Your task to perform on an android device: delete a single message in the gmail app Image 0: 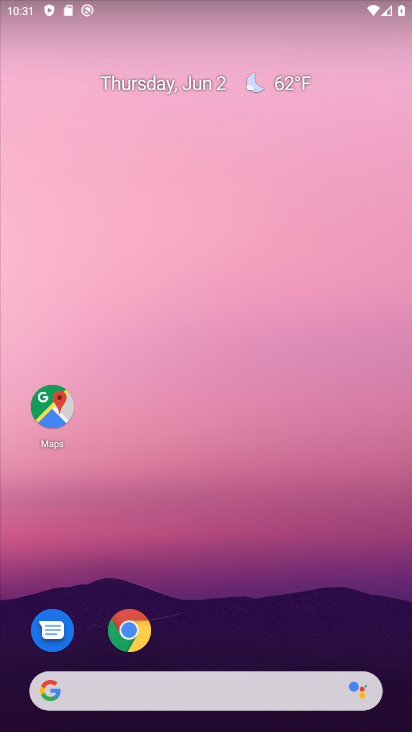
Step 0: drag from (145, 690) to (277, 103)
Your task to perform on an android device: delete a single message in the gmail app Image 1: 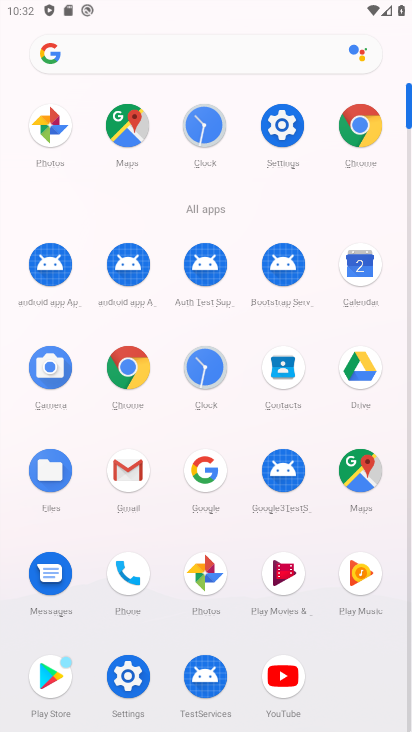
Step 1: click (128, 478)
Your task to perform on an android device: delete a single message in the gmail app Image 2: 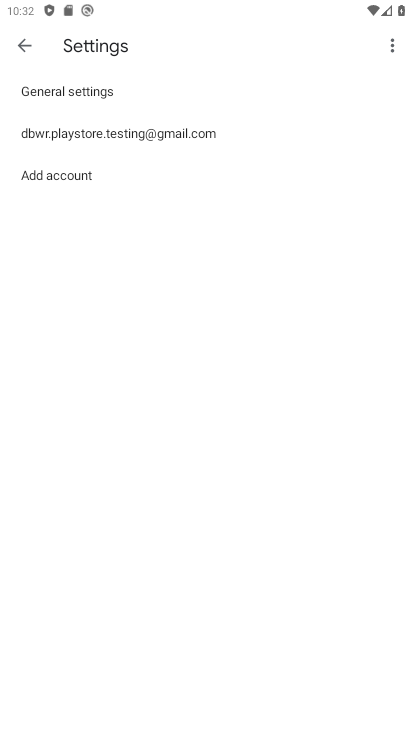
Step 2: click (30, 40)
Your task to perform on an android device: delete a single message in the gmail app Image 3: 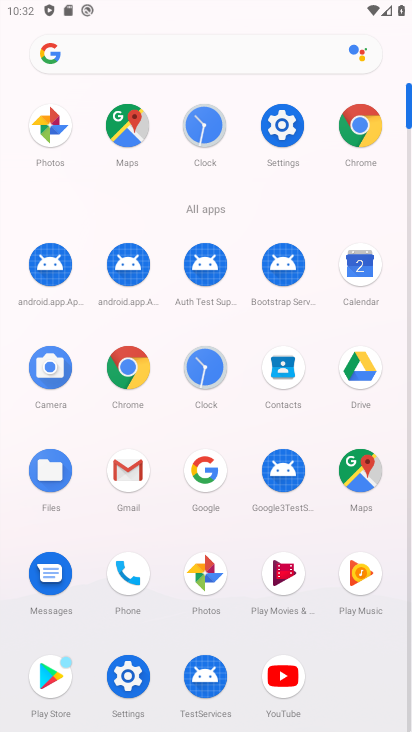
Step 3: click (123, 475)
Your task to perform on an android device: delete a single message in the gmail app Image 4: 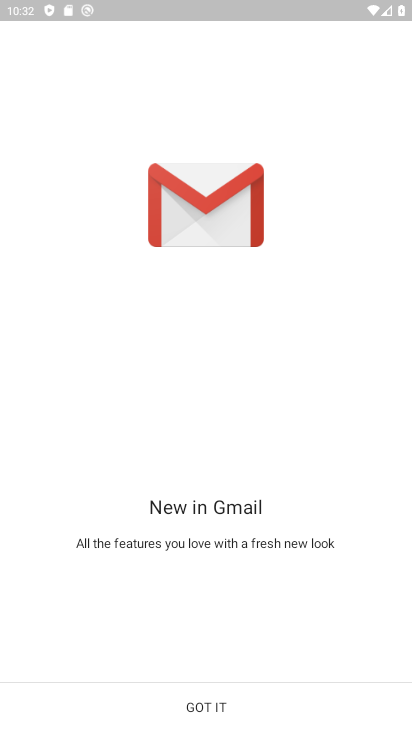
Step 4: click (204, 711)
Your task to perform on an android device: delete a single message in the gmail app Image 5: 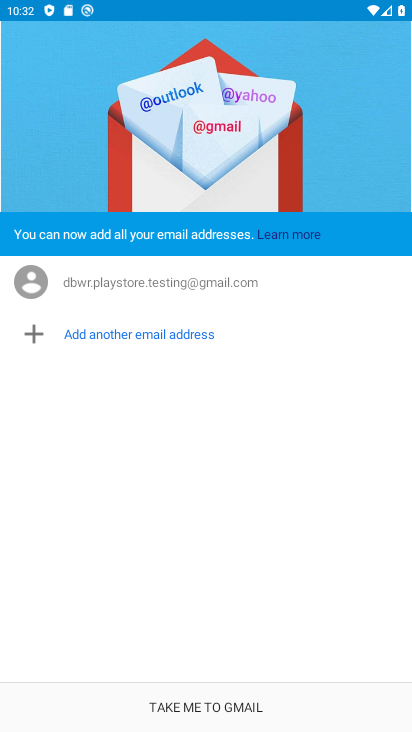
Step 5: click (204, 711)
Your task to perform on an android device: delete a single message in the gmail app Image 6: 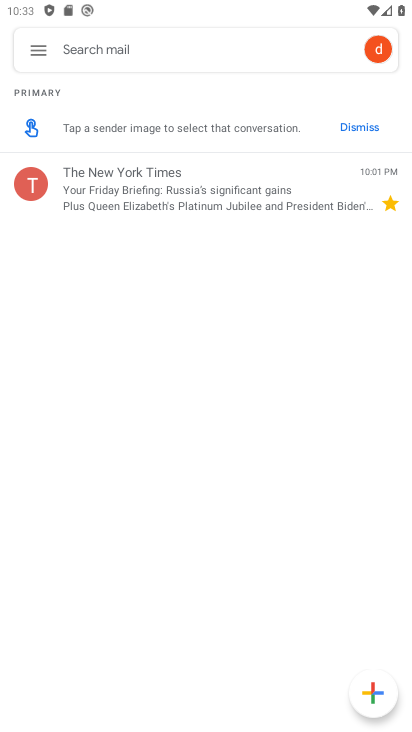
Step 6: click (35, 183)
Your task to perform on an android device: delete a single message in the gmail app Image 7: 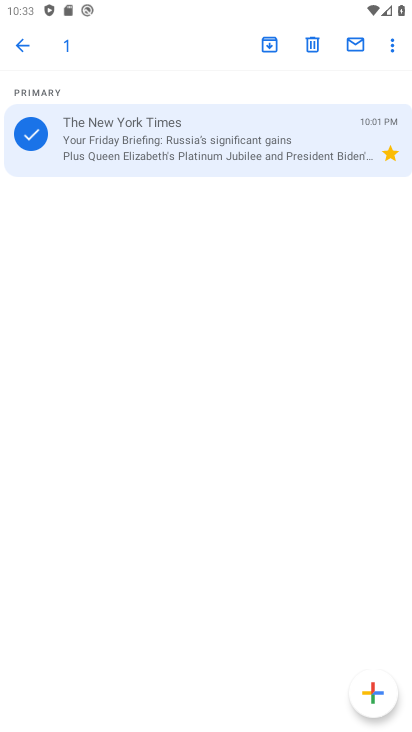
Step 7: click (309, 41)
Your task to perform on an android device: delete a single message in the gmail app Image 8: 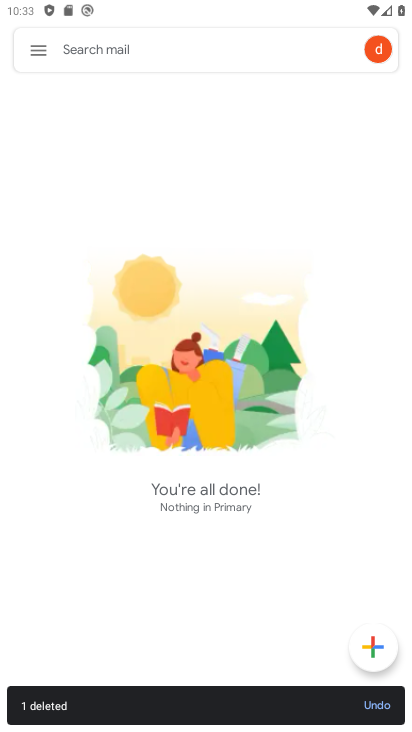
Step 8: task complete